Your task to perform on an android device: check data usage Image 0: 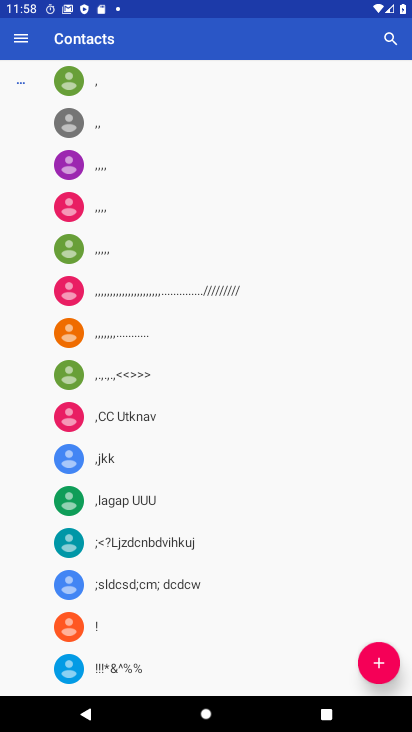
Step 0: press back button
Your task to perform on an android device: check data usage Image 1: 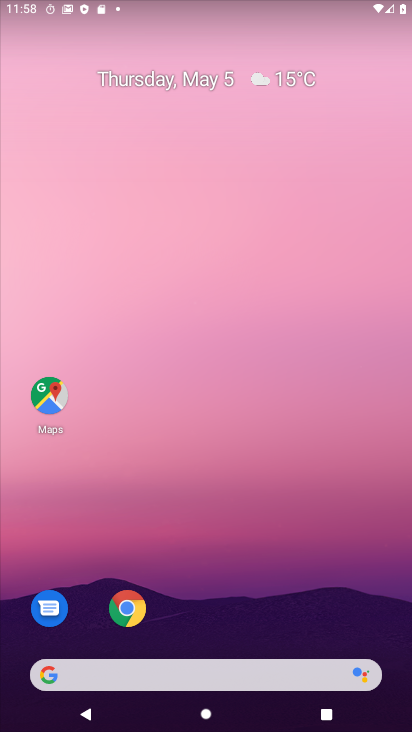
Step 1: drag from (250, 581) to (183, 26)
Your task to perform on an android device: check data usage Image 2: 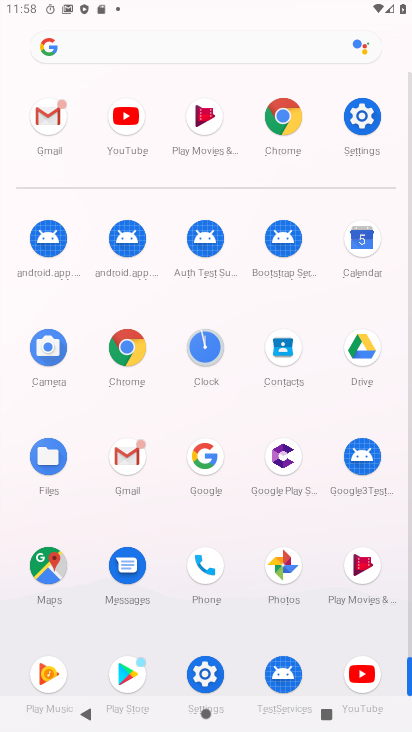
Step 2: click (362, 116)
Your task to perform on an android device: check data usage Image 3: 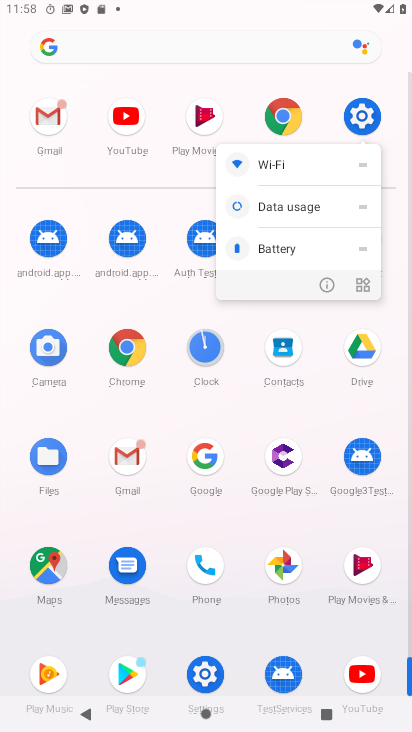
Step 3: click (362, 116)
Your task to perform on an android device: check data usage Image 4: 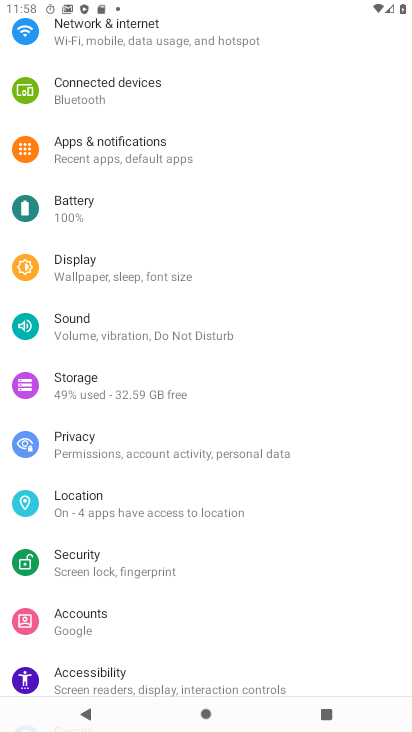
Step 4: drag from (175, 225) to (215, 316)
Your task to perform on an android device: check data usage Image 5: 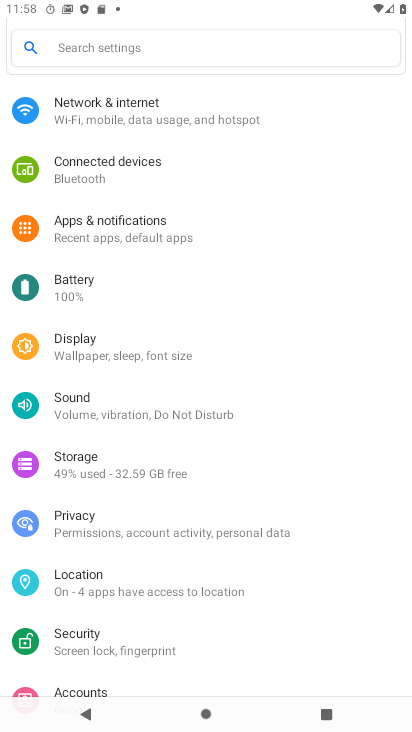
Step 5: click (137, 106)
Your task to perform on an android device: check data usage Image 6: 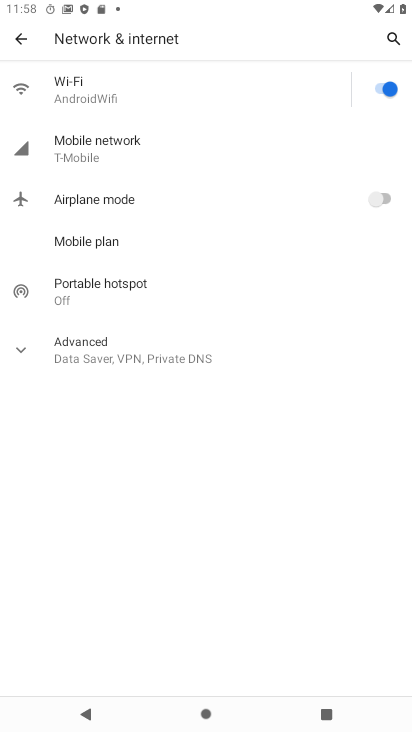
Step 6: click (103, 137)
Your task to perform on an android device: check data usage Image 7: 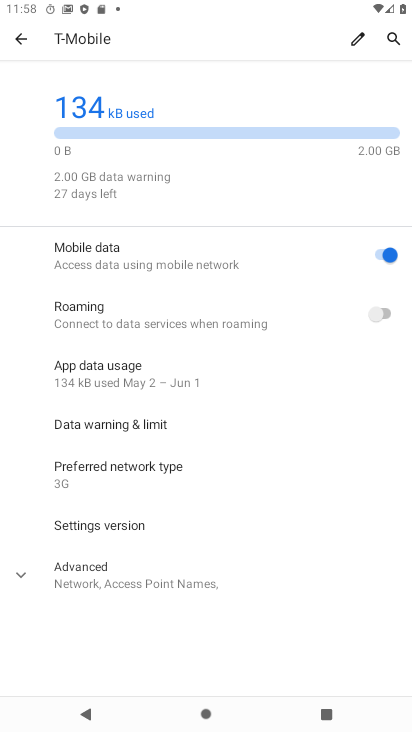
Step 7: task complete